Your task to perform on an android device: search for starred emails in the gmail app Image 0: 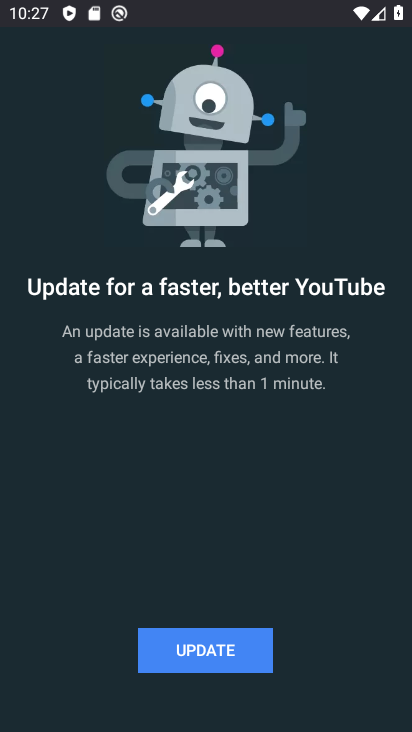
Step 0: press home button
Your task to perform on an android device: search for starred emails in the gmail app Image 1: 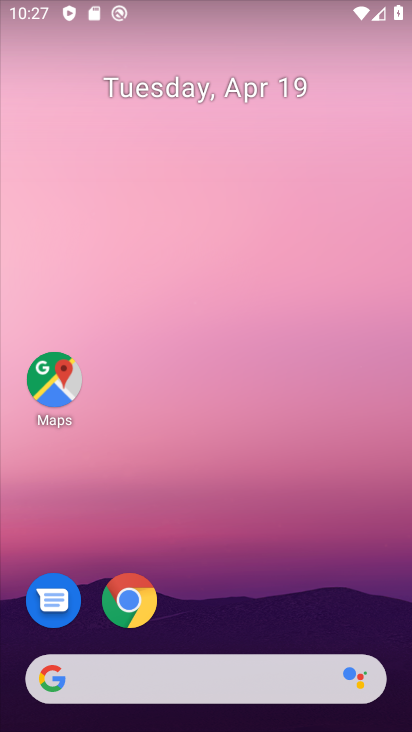
Step 1: drag from (207, 452) to (16, 574)
Your task to perform on an android device: search for starred emails in the gmail app Image 2: 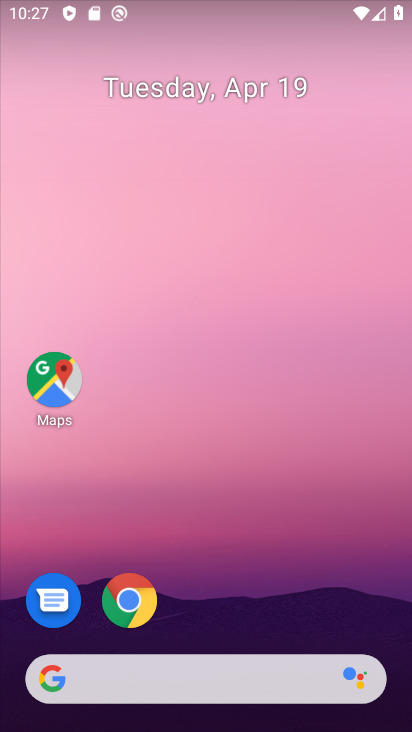
Step 2: drag from (222, 603) to (378, 7)
Your task to perform on an android device: search for starred emails in the gmail app Image 3: 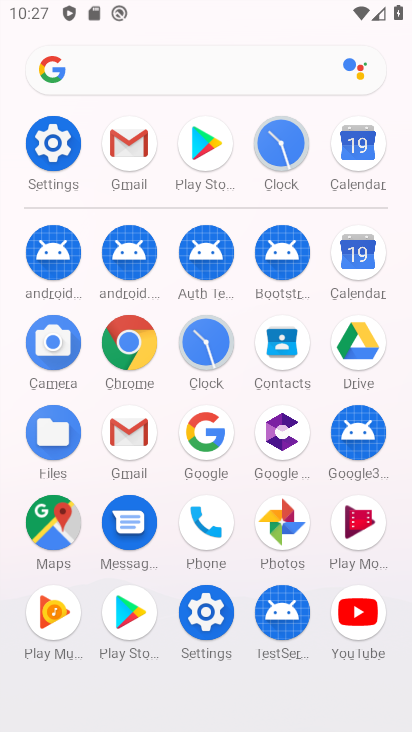
Step 3: click (115, 496)
Your task to perform on an android device: search for starred emails in the gmail app Image 4: 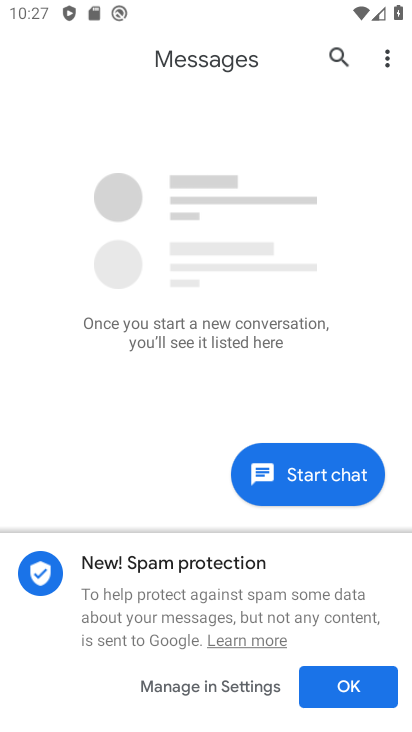
Step 4: press home button
Your task to perform on an android device: search for starred emails in the gmail app Image 5: 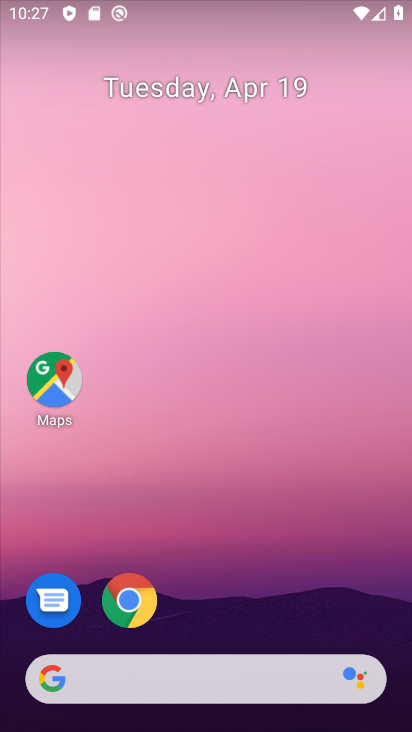
Step 5: drag from (189, 593) to (240, 0)
Your task to perform on an android device: search for starred emails in the gmail app Image 6: 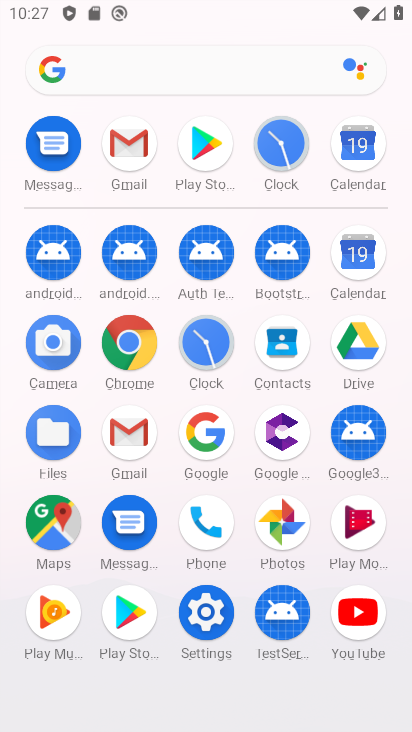
Step 6: click (131, 445)
Your task to perform on an android device: search for starred emails in the gmail app Image 7: 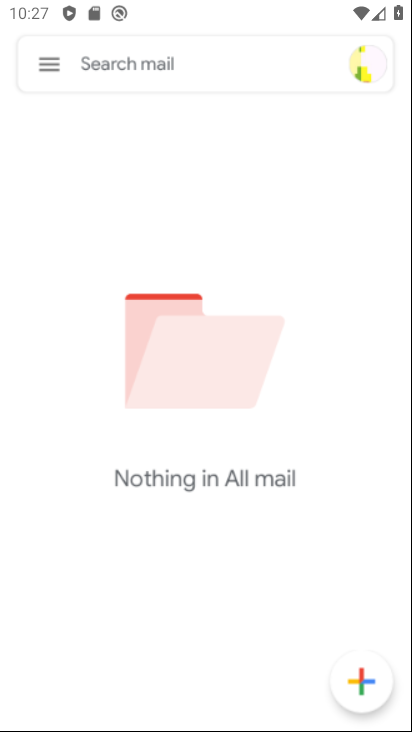
Step 7: click (156, 650)
Your task to perform on an android device: search for starred emails in the gmail app Image 8: 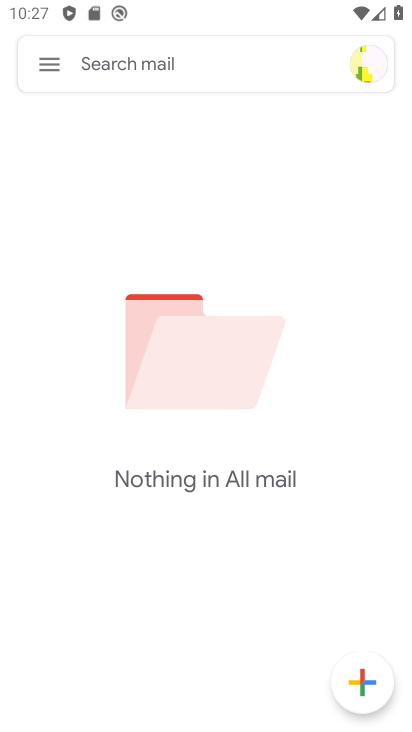
Step 8: click (52, 53)
Your task to perform on an android device: search for starred emails in the gmail app Image 9: 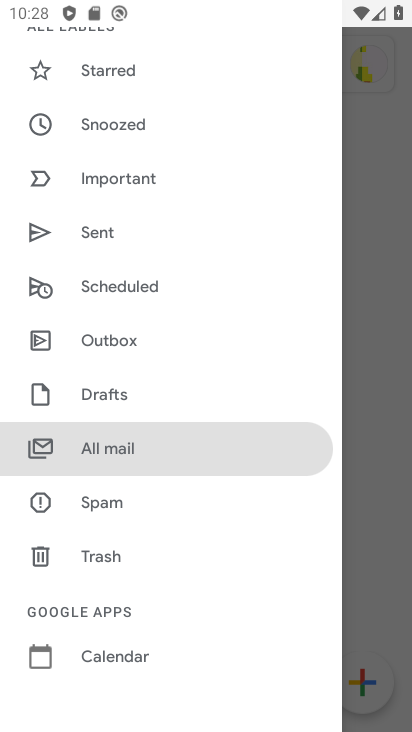
Step 9: click (102, 72)
Your task to perform on an android device: search for starred emails in the gmail app Image 10: 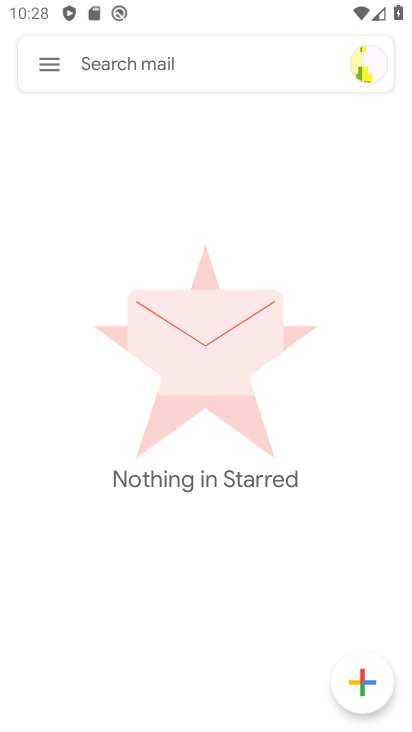
Step 10: task complete